Your task to perform on an android device: Open Google Maps Image 0: 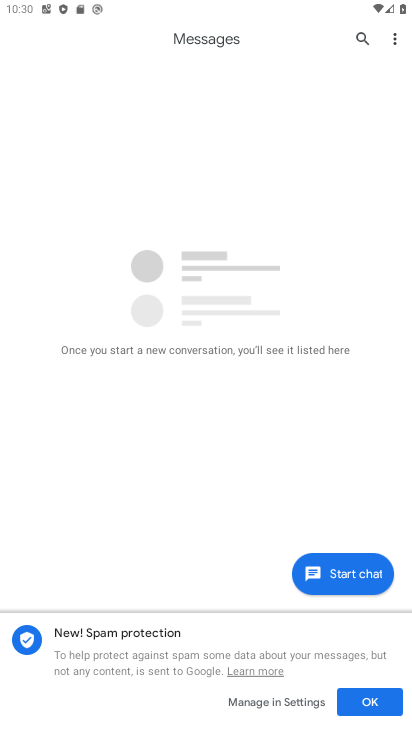
Step 0: press home button
Your task to perform on an android device: Open Google Maps Image 1: 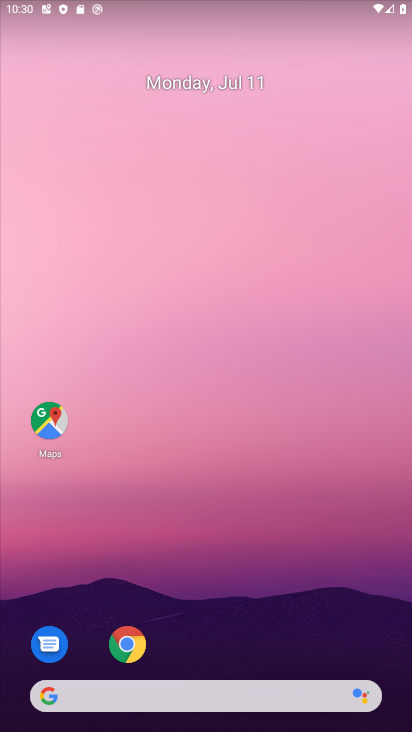
Step 1: click (58, 415)
Your task to perform on an android device: Open Google Maps Image 2: 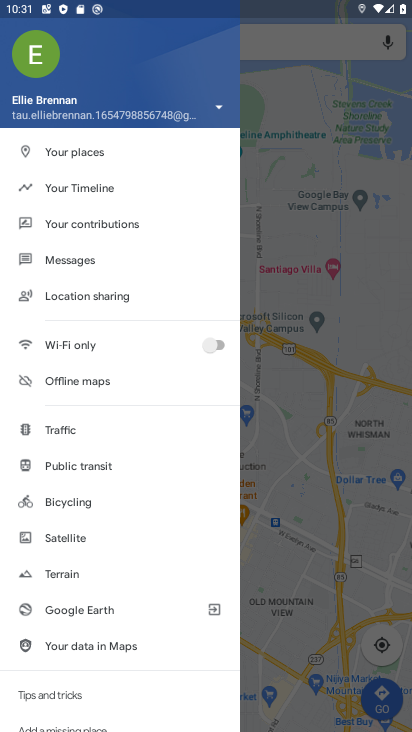
Step 2: task complete